Your task to perform on an android device: Open Reddit.com Image 0: 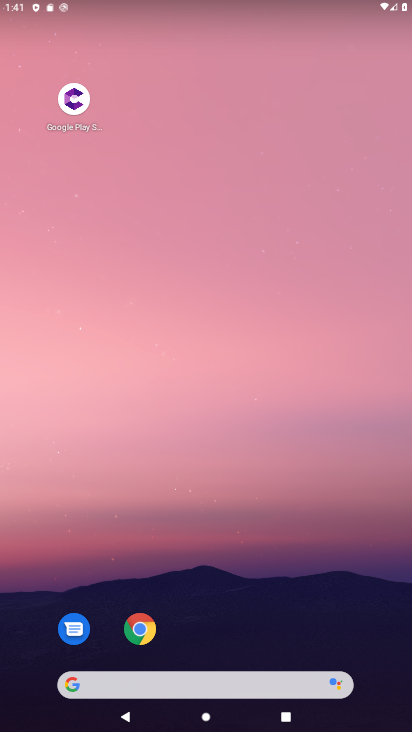
Step 0: click (138, 629)
Your task to perform on an android device: Open Reddit.com Image 1: 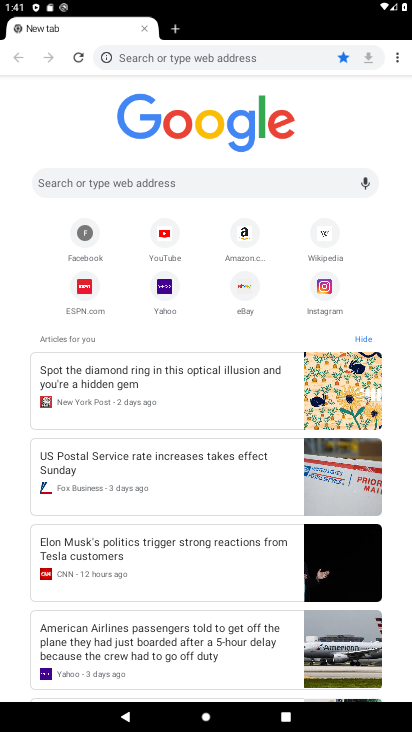
Step 1: click (206, 59)
Your task to perform on an android device: Open Reddit.com Image 2: 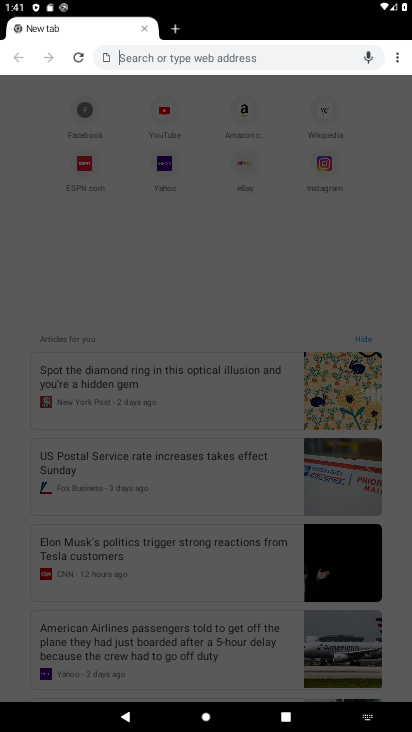
Step 2: type "Reddit.com"
Your task to perform on an android device: Open Reddit.com Image 3: 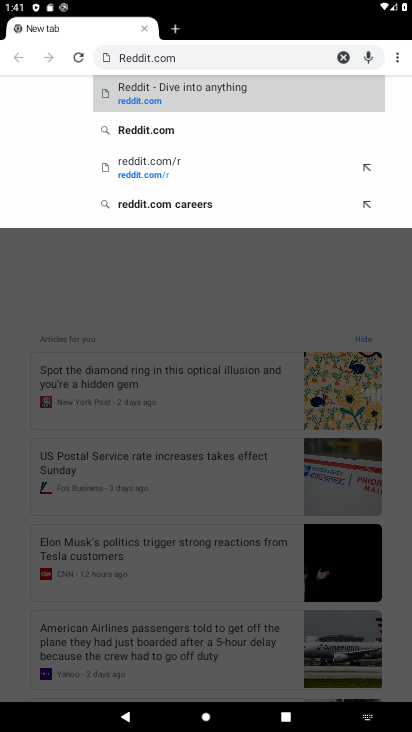
Step 3: click (138, 129)
Your task to perform on an android device: Open Reddit.com Image 4: 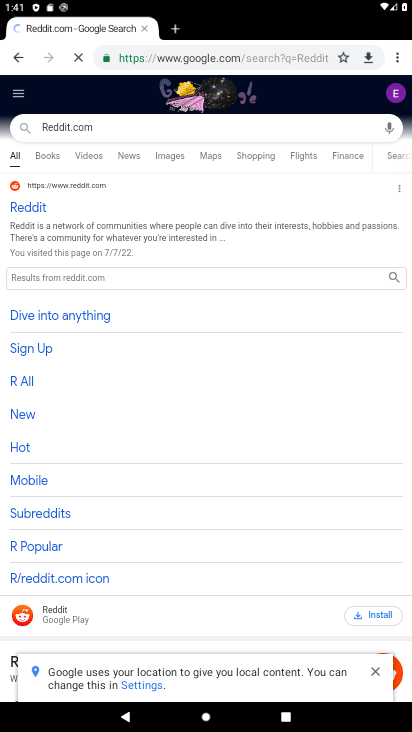
Step 4: click (38, 214)
Your task to perform on an android device: Open Reddit.com Image 5: 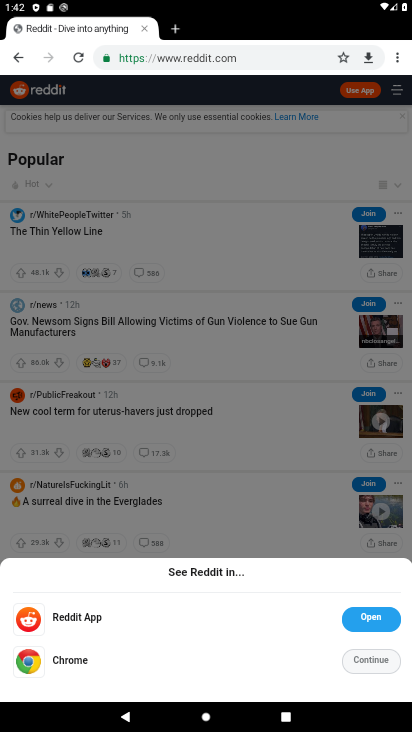
Step 5: click (366, 660)
Your task to perform on an android device: Open Reddit.com Image 6: 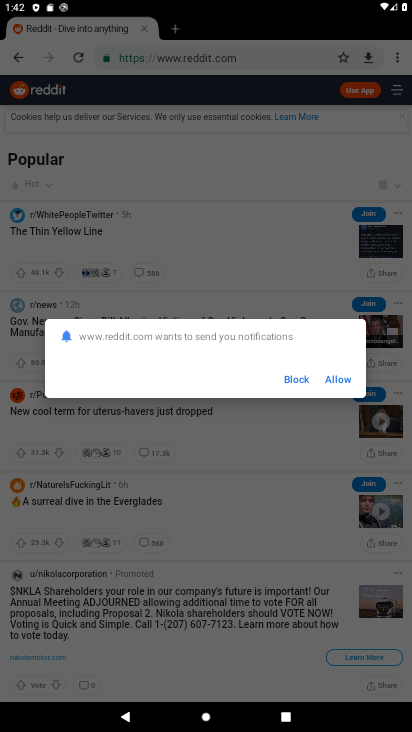
Step 6: click (335, 379)
Your task to perform on an android device: Open Reddit.com Image 7: 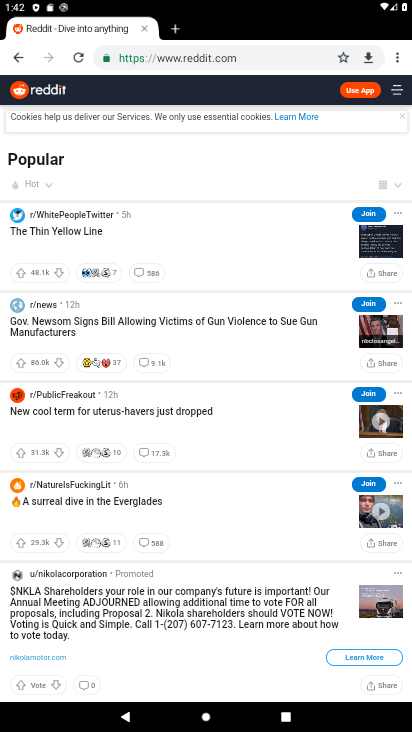
Step 7: task complete